Your task to perform on an android device: turn on translation in the chrome app Image 0: 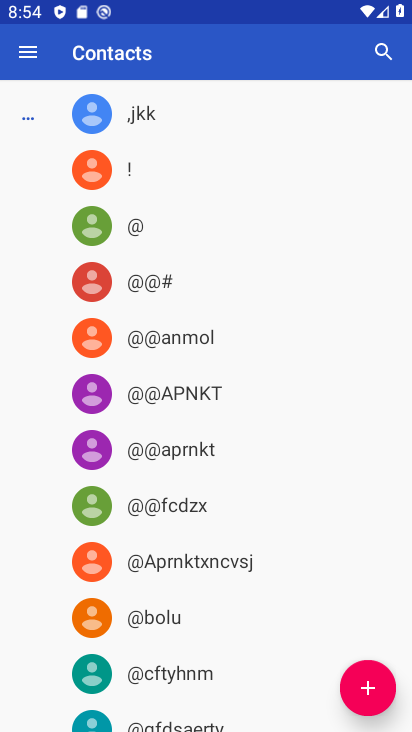
Step 0: press home button
Your task to perform on an android device: turn on translation in the chrome app Image 1: 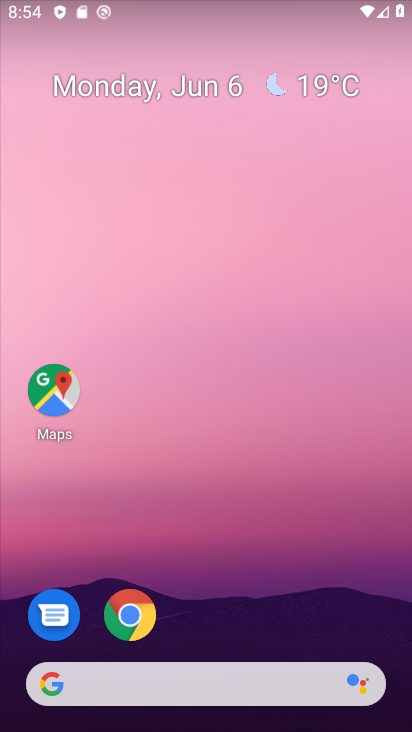
Step 1: click (147, 595)
Your task to perform on an android device: turn on translation in the chrome app Image 2: 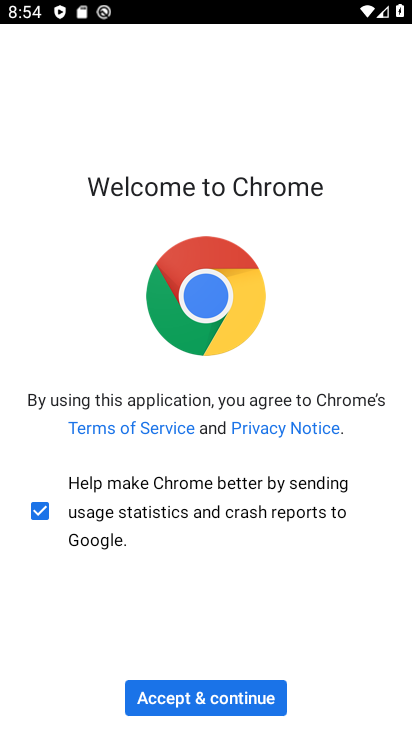
Step 2: click (233, 714)
Your task to perform on an android device: turn on translation in the chrome app Image 3: 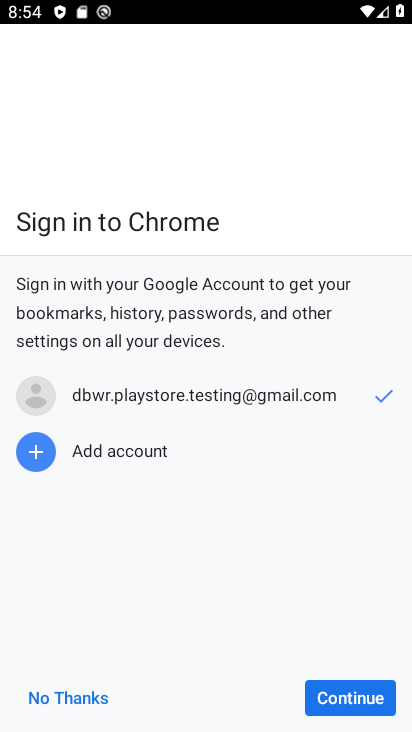
Step 3: click (318, 696)
Your task to perform on an android device: turn on translation in the chrome app Image 4: 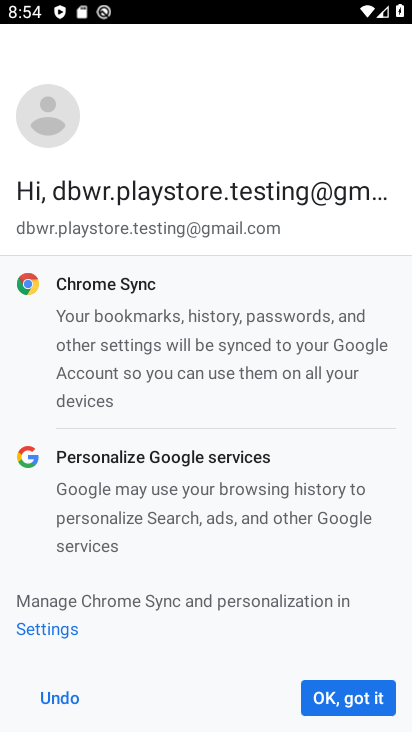
Step 4: click (318, 696)
Your task to perform on an android device: turn on translation in the chrome app Image 5: 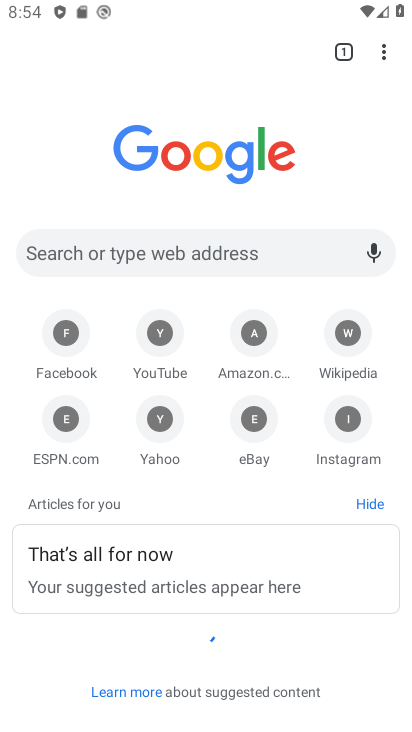
Step 5: click (386, 51)
Your task to perform on an android device: turn on translation in the chrome app Image 6: 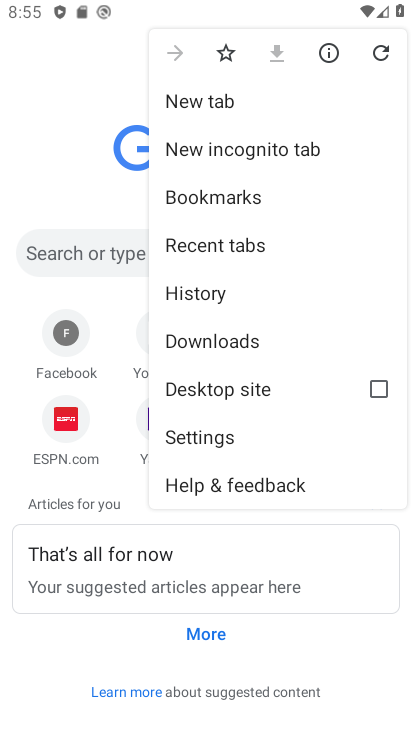
Step 6: click (201, 446)
Your task to perform on an android device: turn on translation in the chrome app Image 7: 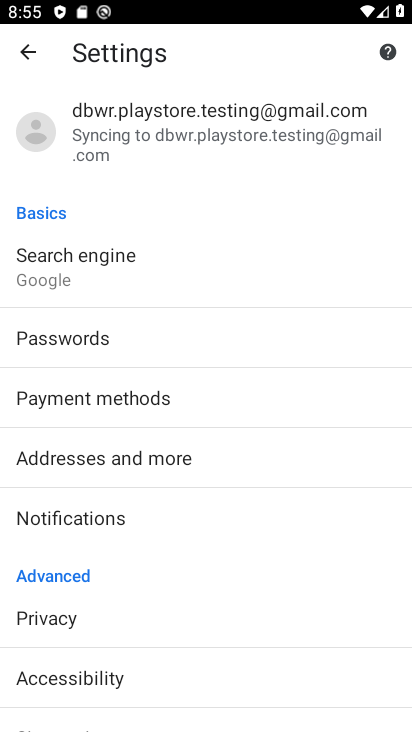
Step 7: drag from (150, 610) to (103, 73)
Your task to perform on an android device: turn on translation in the chrome app Image 8: 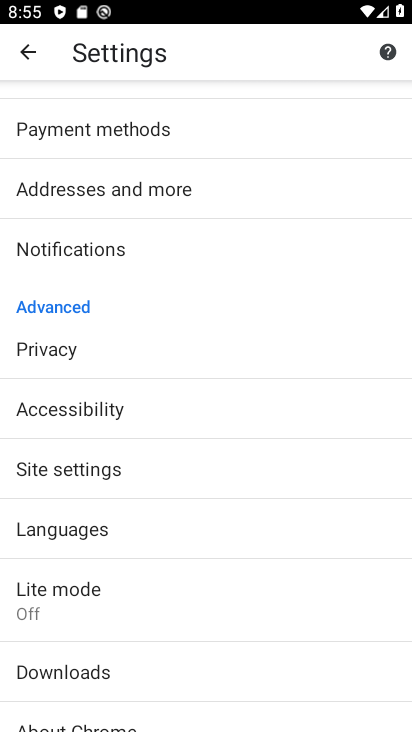
Step 8: click (77, 590)
Your task to perform on an android device: turn on translation in the chrome app Image 9: 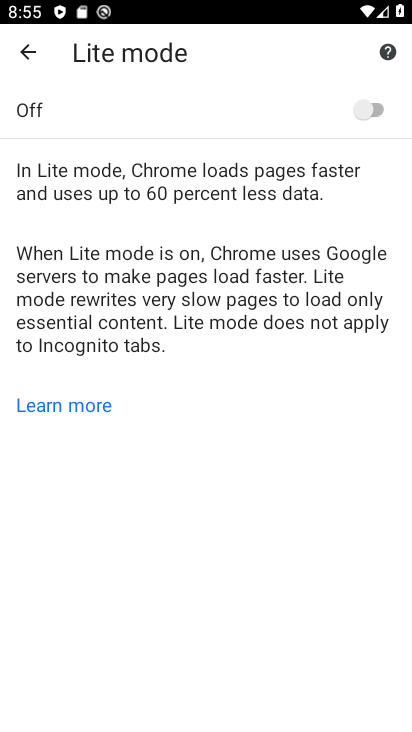
Step 9: click (16, 43)
Your task to perform on an android device: turn on translation in the chrome app Image 10: 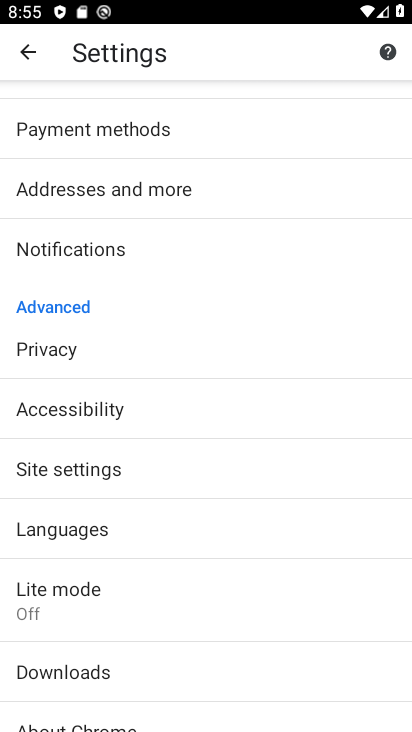
Step 10: click (145, 542)
Your task to perform on an android device: turn on translation in the chrome app Image 11: 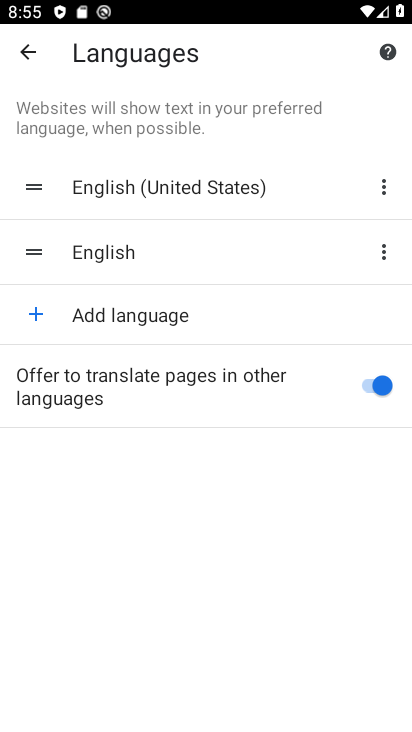
Step 11: task complete